Your task to perform on an android device: Open Google Maps and go to "Timeline" Image 0: 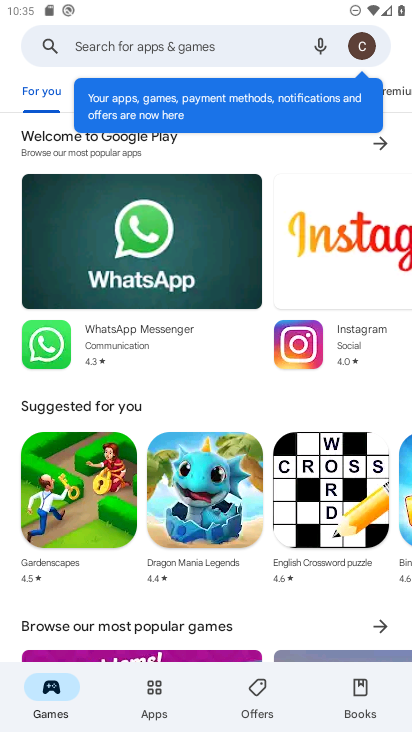
Step 0: press home button
Your task to perform on an android device: Open Google Maps and go to "Timeline" Image 1: 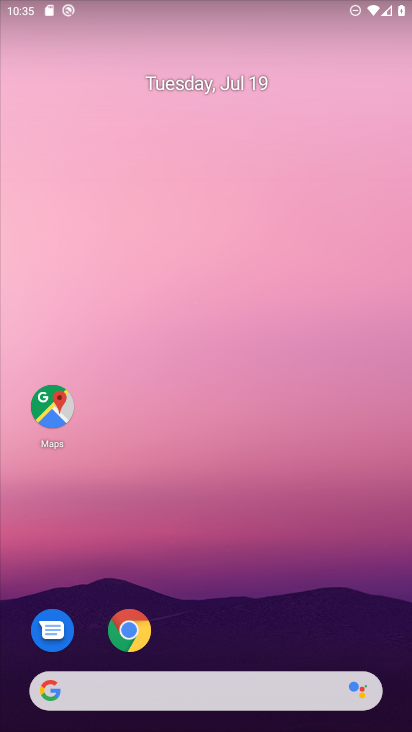
Step 1: click (54, 385)
Your task to perform on an android device: Open Google Maps and go to "Timeline" Image 2: 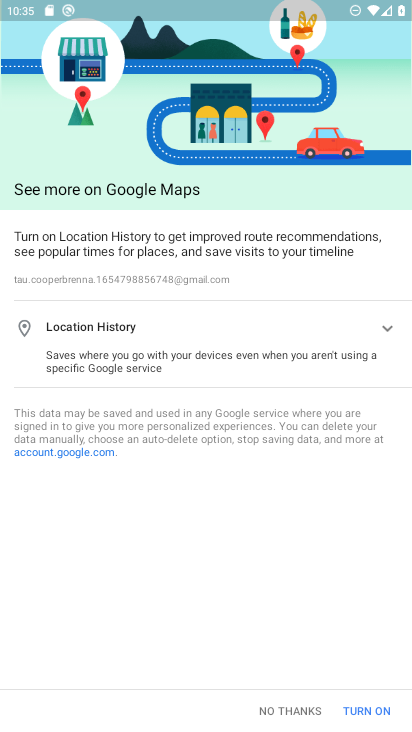
Step 2: click (363, 706)
Your task to perform on an android device: Open Google Maps and go to "Timeline" Image 3: 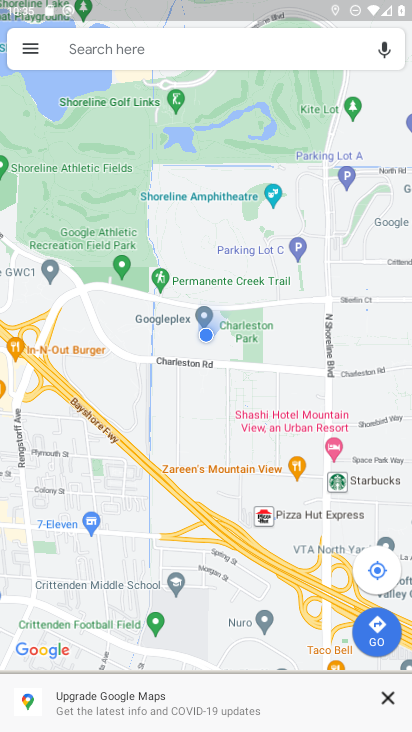
Step 3: click (30, 50)
Your task to perform on an android device: Open Google Maps and go to "Timeline" Image 4: 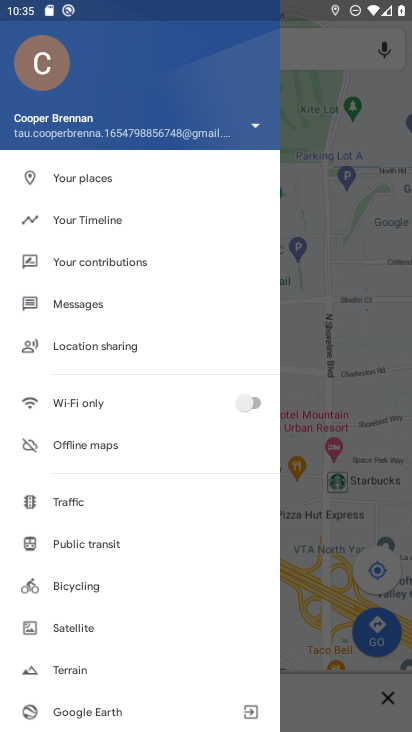
Step 4: click (98, 224)
Your task to perform on an android device: Open Google Maps and go to "Timeline" Image 5: 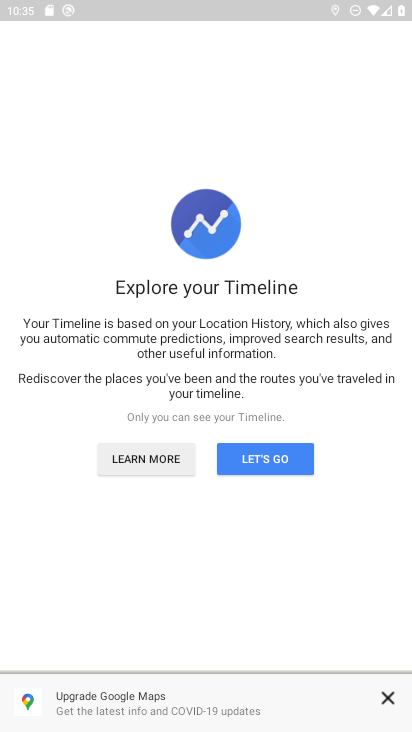
Step 5: click (239, 449)
Your task to perform on an android device: Open Google Maps and go to "Timeline" Image 6: 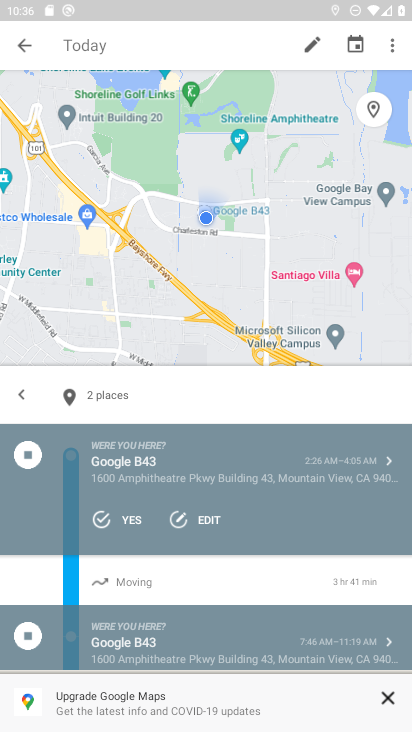
Step 6: task complete